Your task to perform on an android device: Open calendar and show me the first week of next month Image 0: 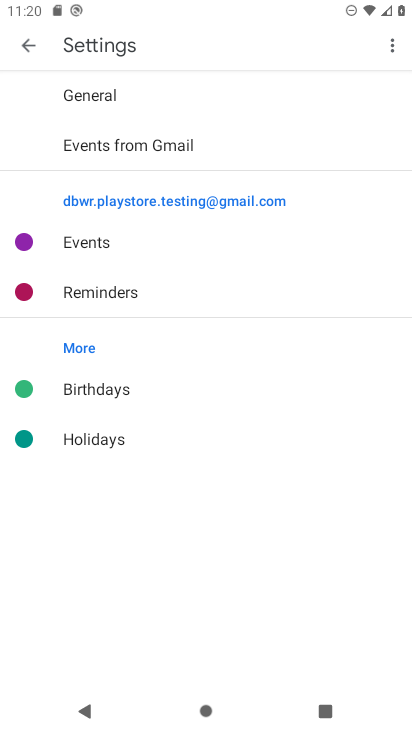
Step 0: press home button
Your task to perform on an android device: Open calendar and show me the first week of next month Image 1: 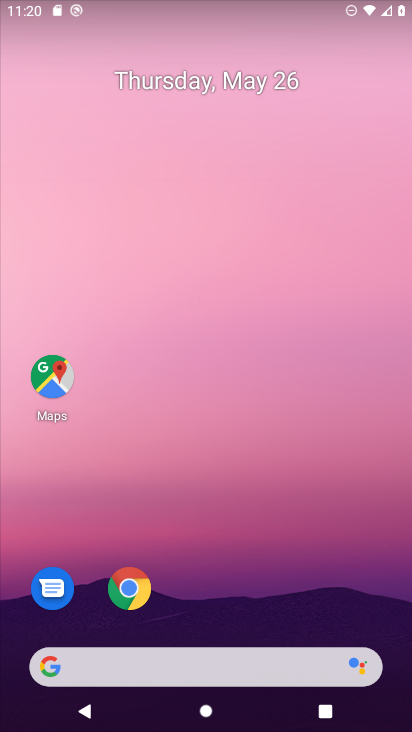
Step 1: drag from (388, 618) to (337, 61)
Your task to perform on an android device: Open calendar and show me the first week of next month Image 2: 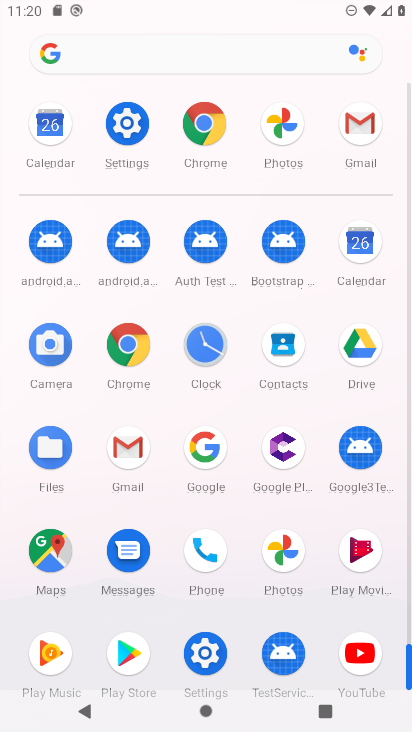
Step 2: click (358, 241)
Your task to perform on an android device: Open calendar and show me the first week of next month Image 3: 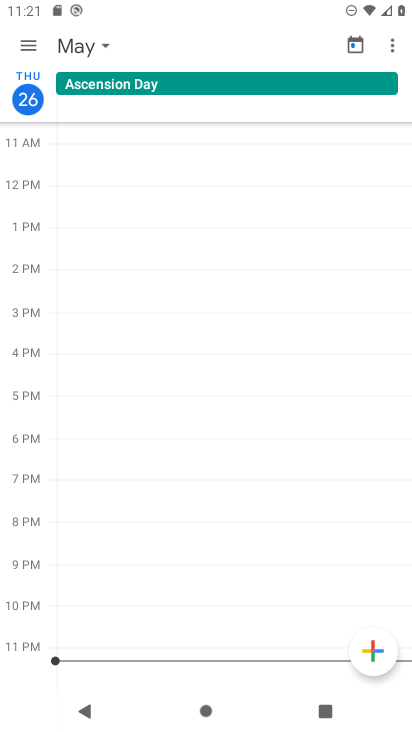
Step 3: click (25, 39)
Your task to perform on an android device: Open calendar and show me the first week of next month Image 4: 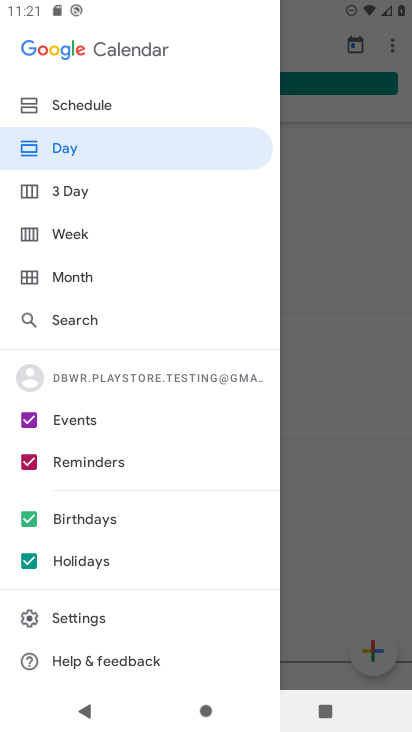
Step 4: click (70, 227)
Your task to perform on an android device: Open calendar and show me the first week of next month Image 5: 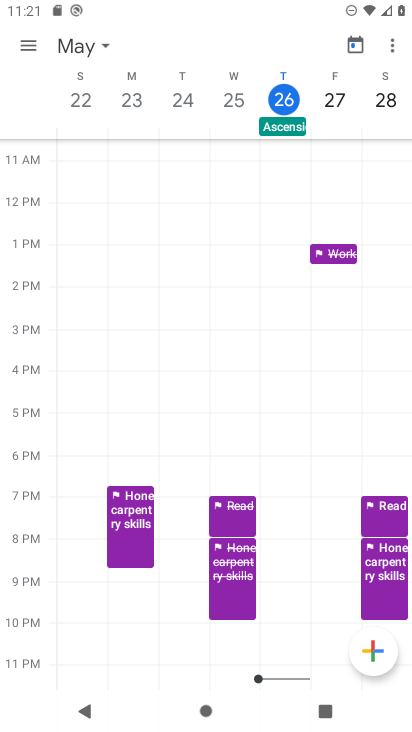
Step 5: click (100, 44)
Your task to perform on an android device: Open calendar and show me the first week of next month Image 6: 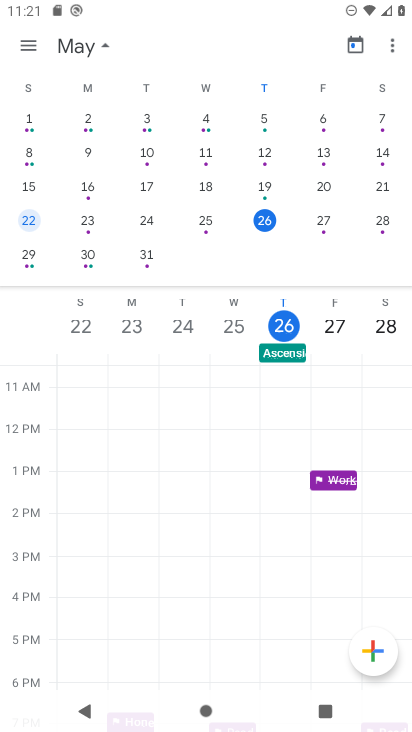
Step 6: drag from (381, 192) to (60, 174)
Your task to perform on an android device: Open calendar and show me the first week of next month Image 7: 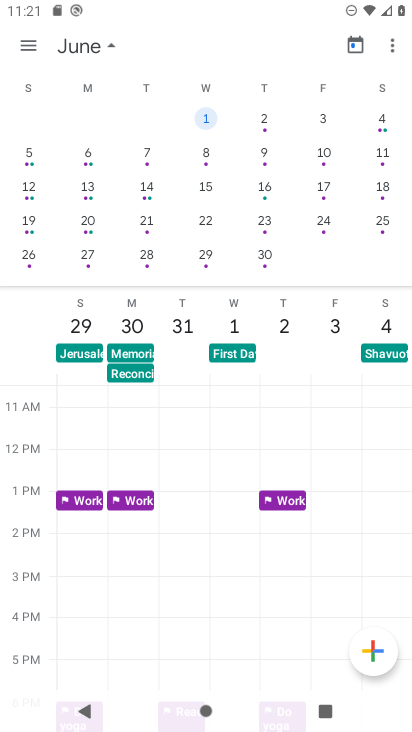
Step 7: click (32, 150)
Your task to perform on an android device: Open calendar and show me the first week of next month Image 8: 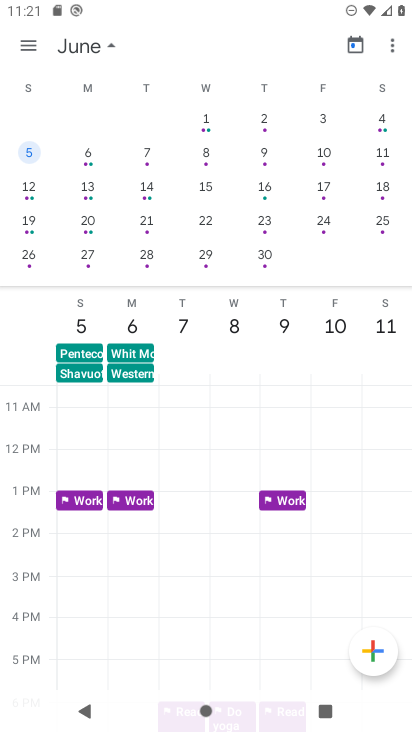
Step 8: task complete